Your task to perform on an android device: turn on location history Image 0: 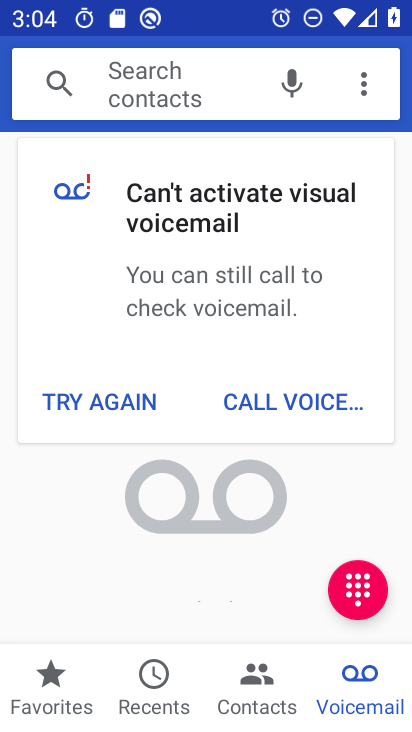
Step 0: press home button
Your task to perform on an android device: turn on location history Image 1: 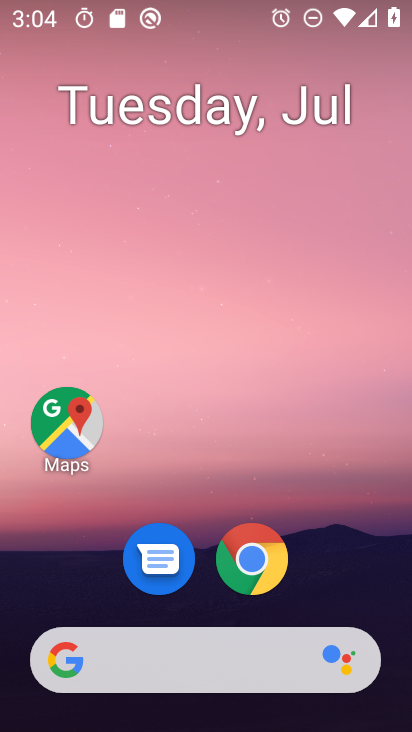
Step 1: drag from (344, 587) to (384, 147)
Your task to perform on an android device: turn on location history Image 2: 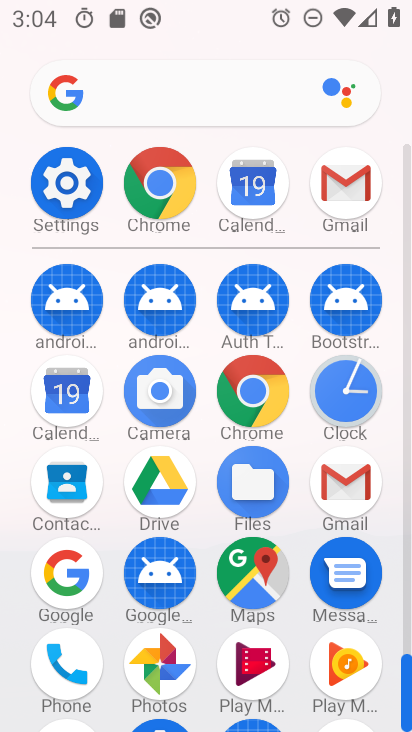
Step 2: click (76, 197)
Your task to perform on an android device: turn on location history Image 3: 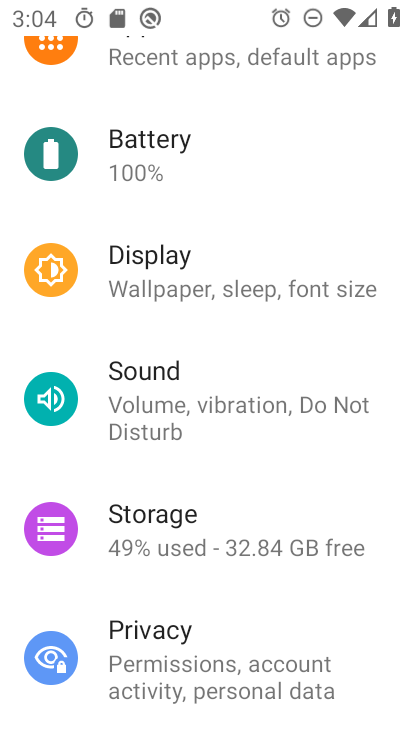
Step 3: drag from (357, 185) to (380, 317)
Your task to perform on an android device: turn on location history Image 4: 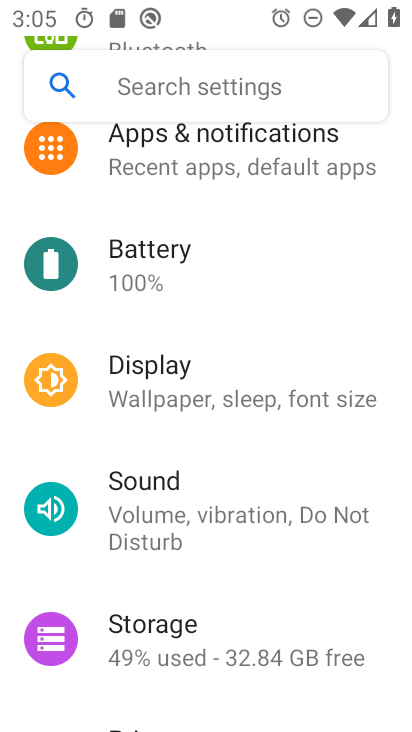
Step 4: drag from (374, 208) to (373, 336)
Your task to perform on an android device: turn on location history Image 5: 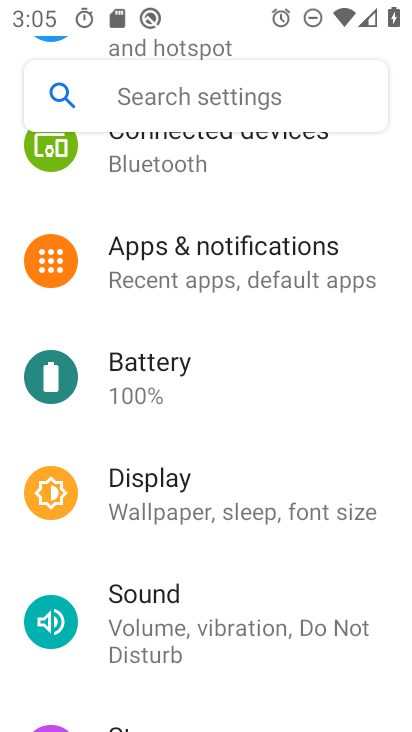
Step 5: drag from (356, 406) to (368, 328)
Your task to perform on an android device: turn on location history Image 6: 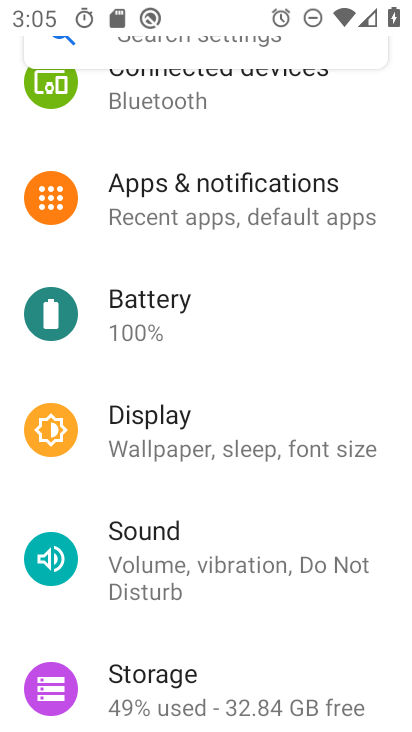
Step 6: drag from (363, 478) to (364, 392)
Your task to perform on an android device: turn on location history Image 7: 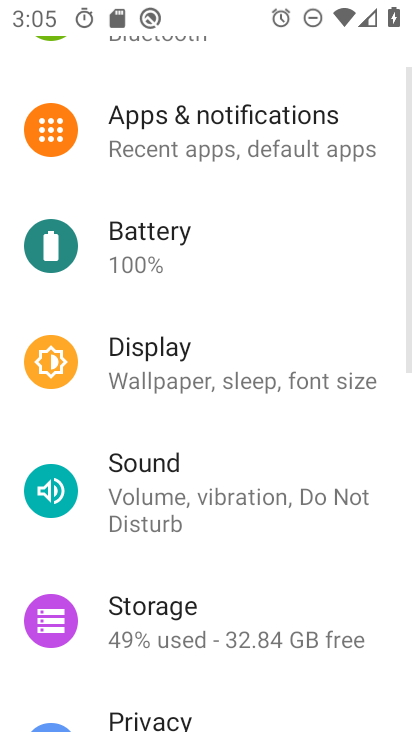
Step 7: drag from (366, 478) to (365, 387)
Your task to perform on an android device: turn on location history Image 8: 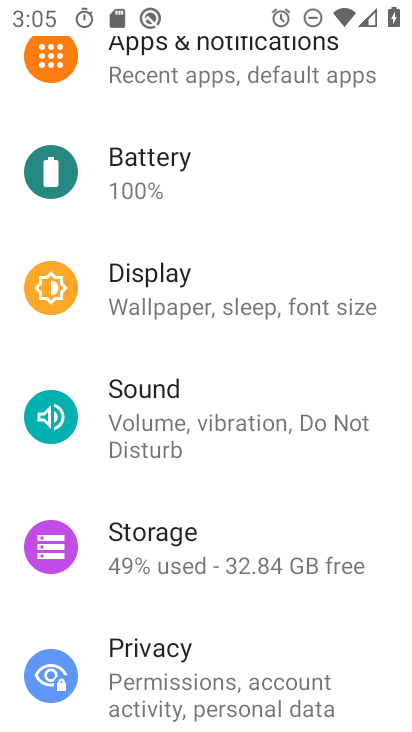
Step 8: drag from (346, 474) to (351, 370)
Your task to perform on an android device: turn on location history Image 9: 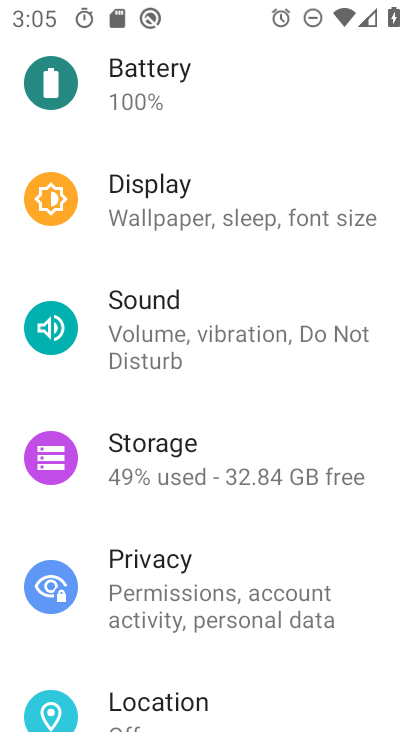
Step 9: drag from (369, 525) to (370, 396)
Your task to perform on an android device: turn on location history Image 10: 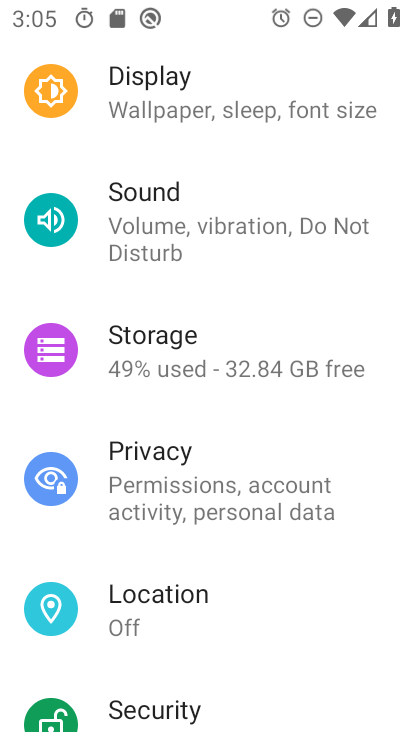
Step 10: drag from (361, 562) to (363, 442)
Your task to perform on an android device: turn on location history Image 11: 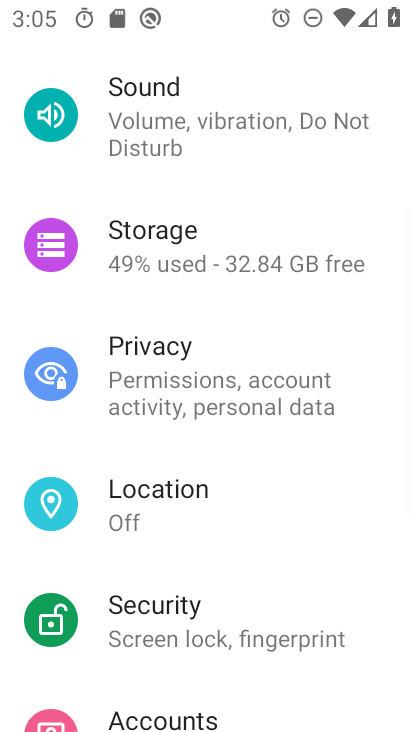
Step 11: click (316, 521)
Your task to perform on an android device: turn on location history Image 12: 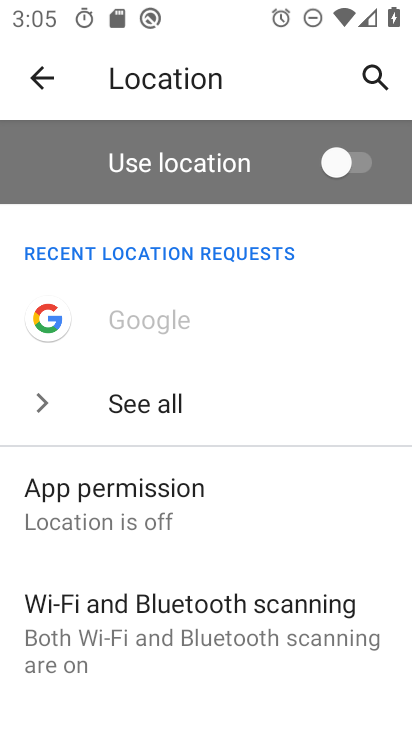
Step 12: drag from (332, 532) to (337, 370)
Your task to perform on an android device: turn on location history Image 13: 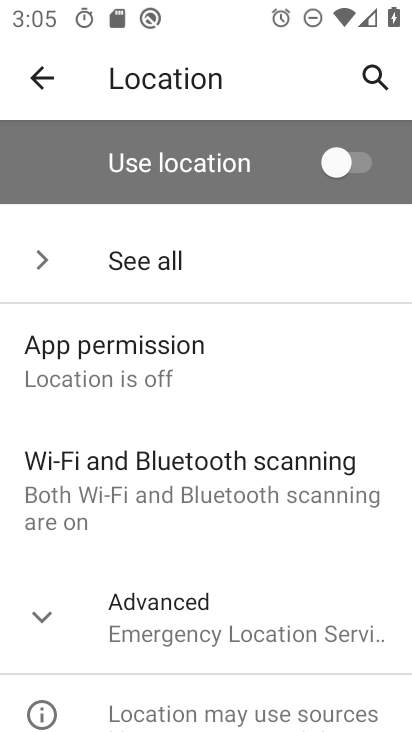
Step 13: click (314, 625)
Your task to perform on an android device: turn on location history Image 14: 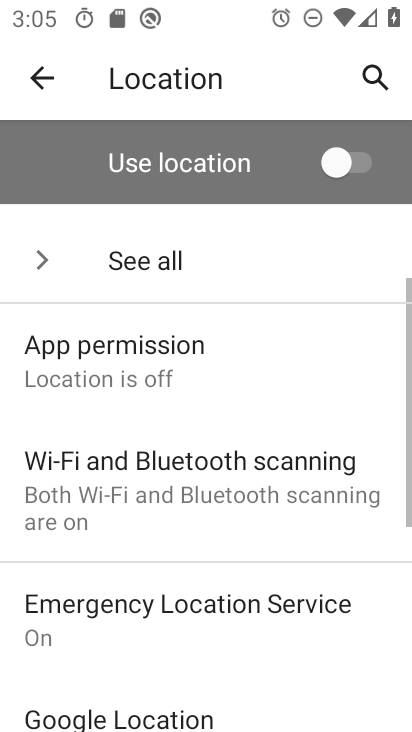
Step 14: drag from (314, 625) to (336, 499)
Your task to perform on an android device: turn on location history Image 15: 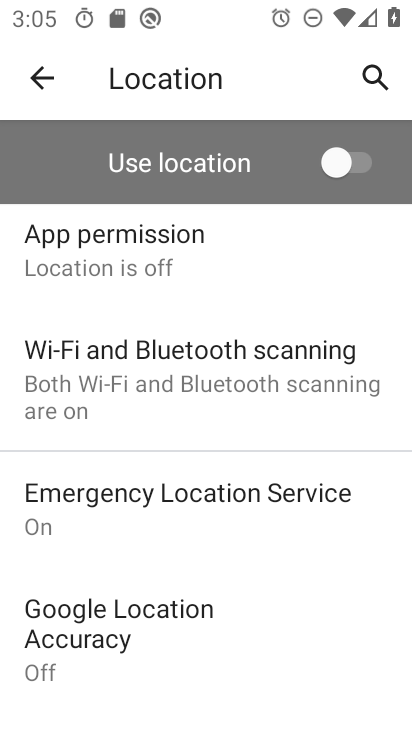
Step 15: drag from (326, 608) to (338, 494)
Your task to perform on an android device: turn on location history Image 16: 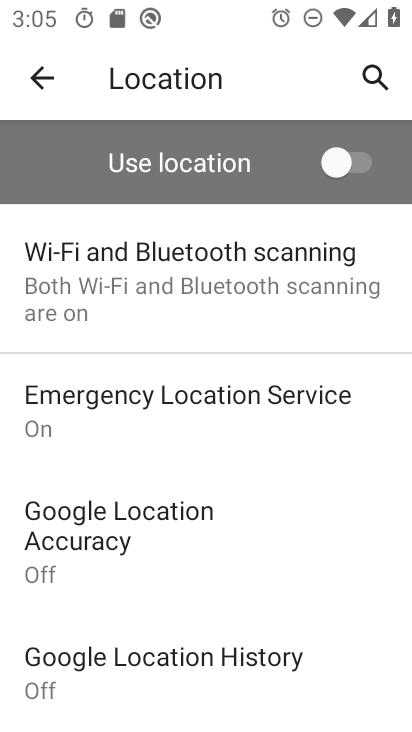
Step 16: drag from (356, 610) to (356, 463)
Your task to perform on an android device: turn on location history Image 17: 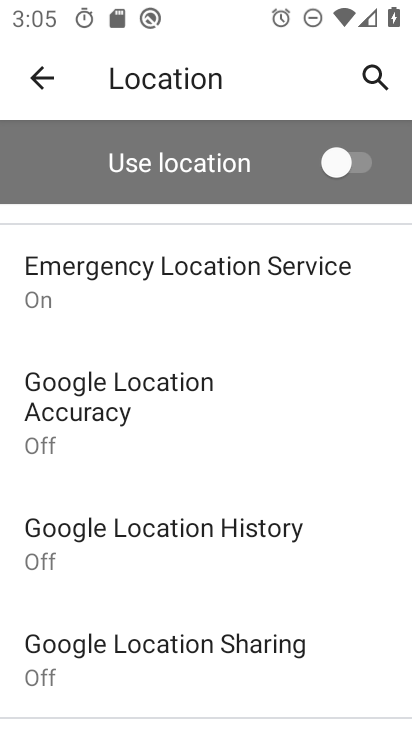
Step 17: drag from (352, 584) to (359, 451)
Your task to perform on an android device: turn on location history Image 18: 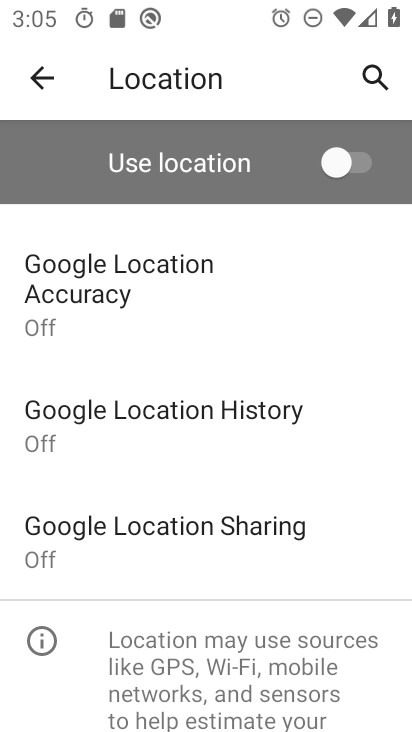
Step 18: click (249, 421)
Your task to perform on an android device: turn on location history Image 19: 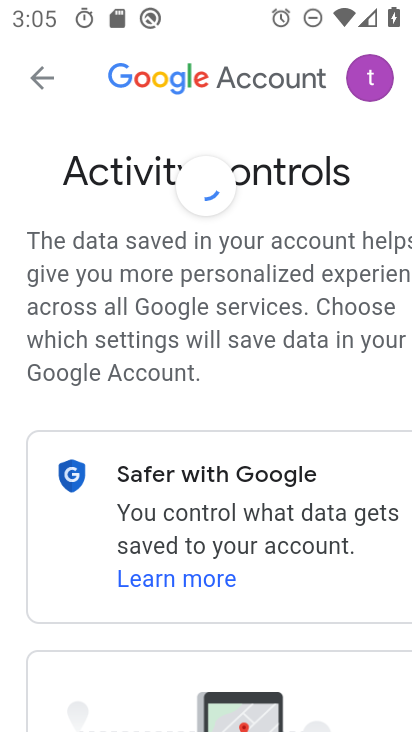
Step 19: task complete